Your task to perform on an android device: turn on data saver in the chrome app Image 0: 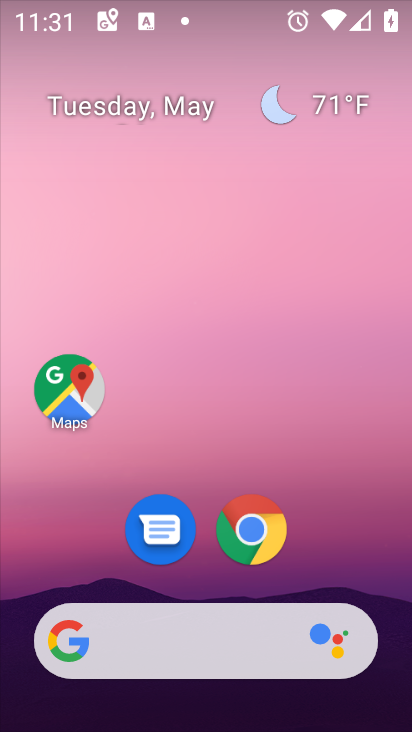
Step 0: click (251, 521)
Your task to perform on an android device: turn on data saver in the chrome app Image 1: 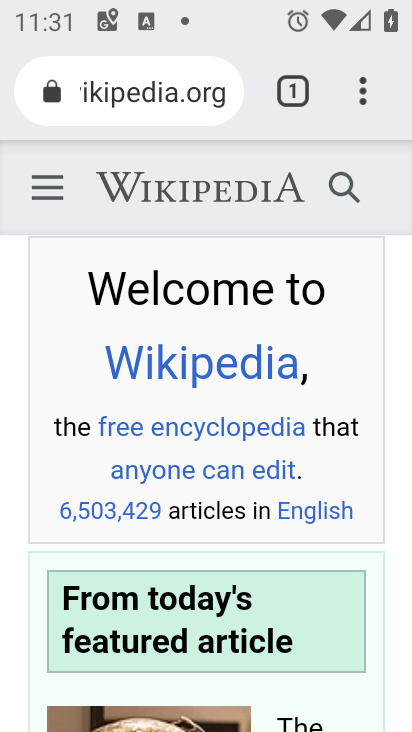
Step 1: click (360, 101)
Your task to perform on an android device: turn on data saver in the chrome app Image 2: 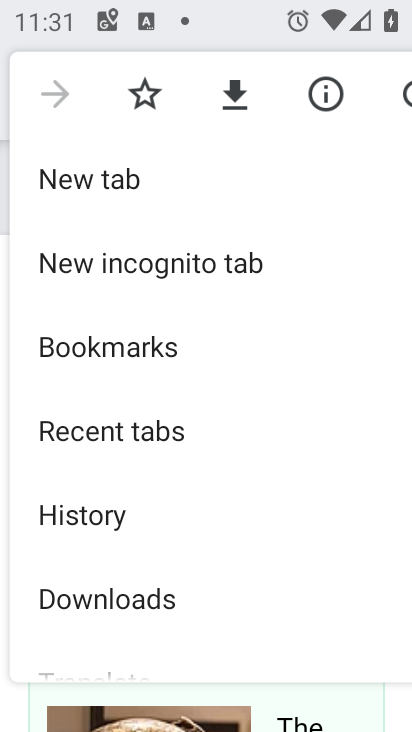
Step 2: drag from (223, 576) to (207, 304)
Your task to perform on an android device: turn on data saver in the chrome app Image 3: 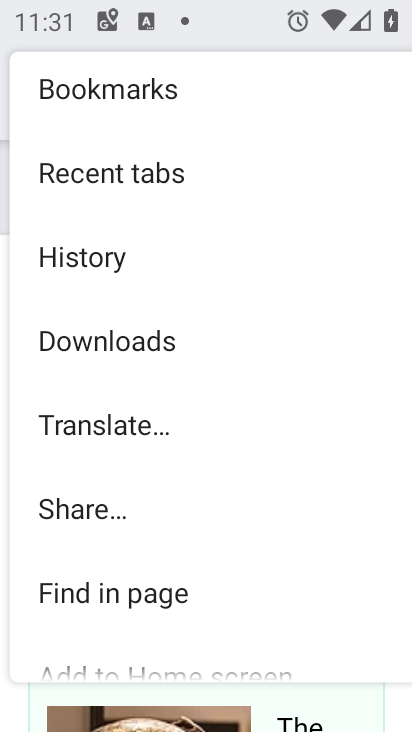
Step 3: drag from (206, 526) to (236, 25)
Your task to perform on an android device: turn on data saver in the chrome app Image 4: 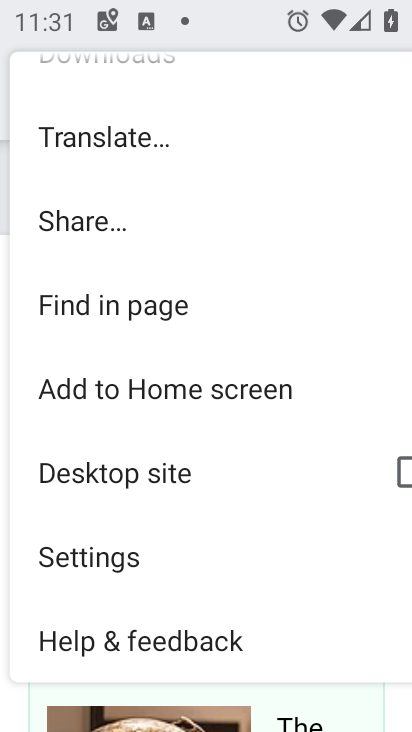
Step 4: click (90, 564)
Your task to perform on an android device: turn on data saver in the chrome app Image 5: 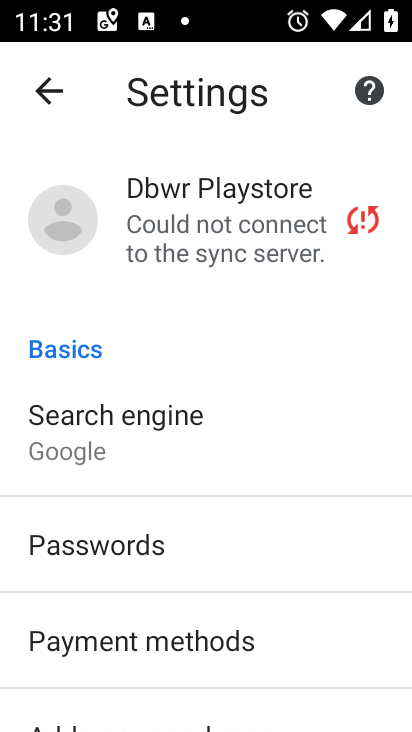
Step 5: drag from (184, 548) to (144, 229)
Your task to perform on an android device: turn on data saver in the chrome app Image 6: 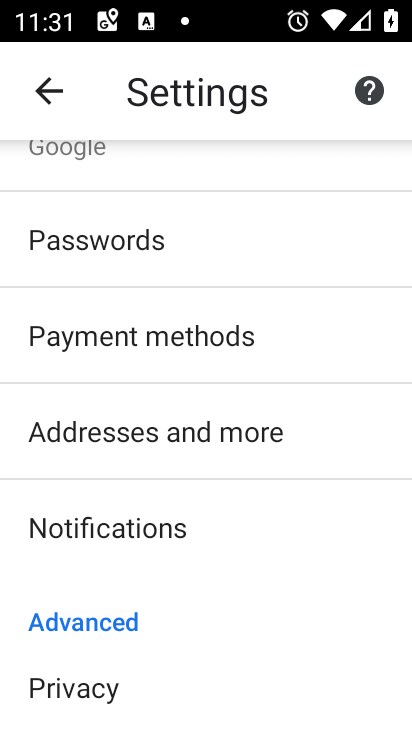
Step 6: drag from (246, 578) to (211, 313)
Your task to perform on an android device: turn on data saver in the chrome app Image 7: 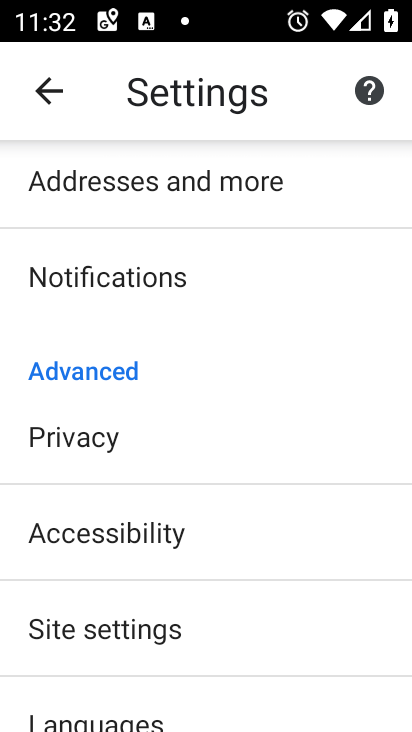
Step 7: drag from (138, 647) to (142, 268)
Your task to perform on an android device: turn on data saver in the chrome app Image 8: 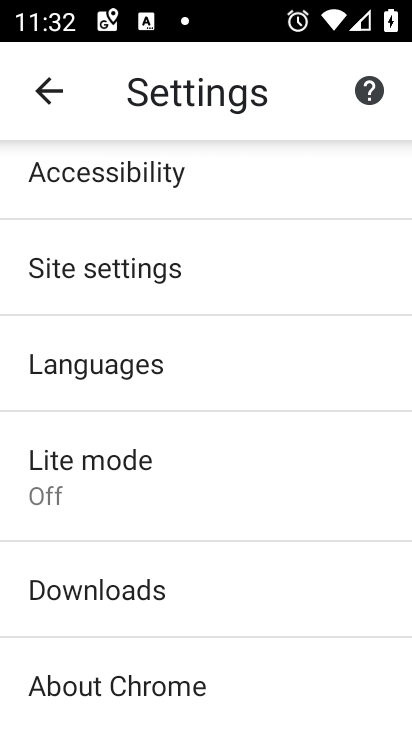
Step 8: click (109, 507)
Your task to perform on an android device: turn on data saver in the chrome app Image 9: 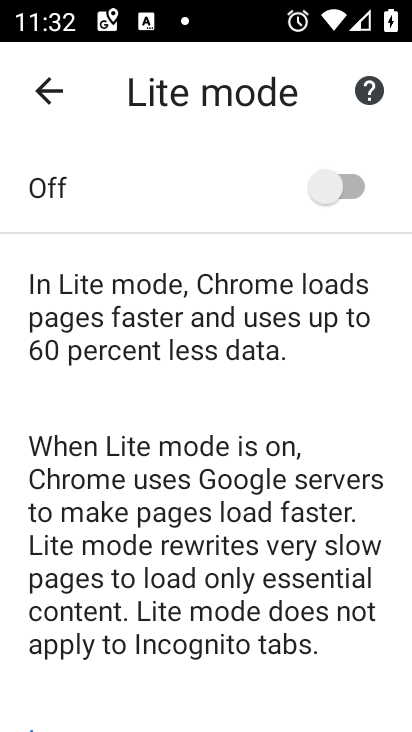
Step 9: click (251, 179)
Your task to perform on an android device: turn on data saver in the chrome app Image 10: 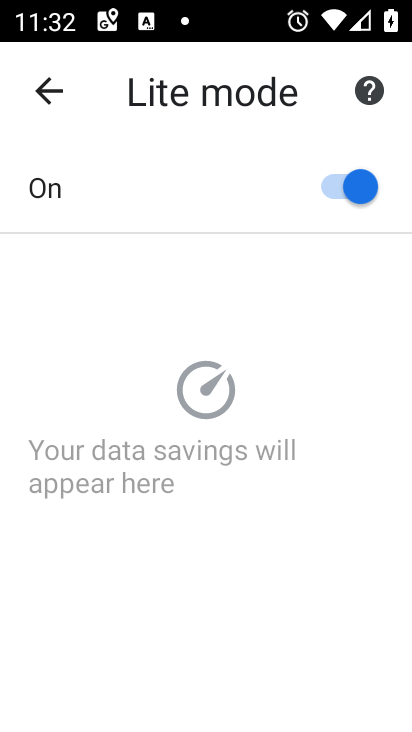
Step 10: task complete